Your task to perform on an android device: Open Yahoo.com Image 0: 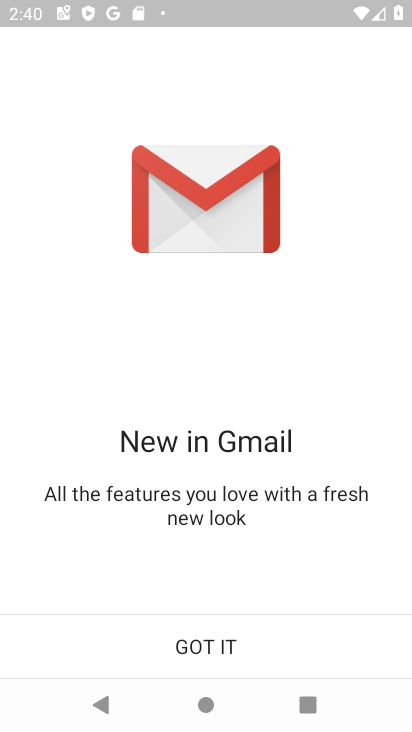
Step 0: click (199, 644)
Your task to perform on an android device: Open Yahoo.com Image 1: 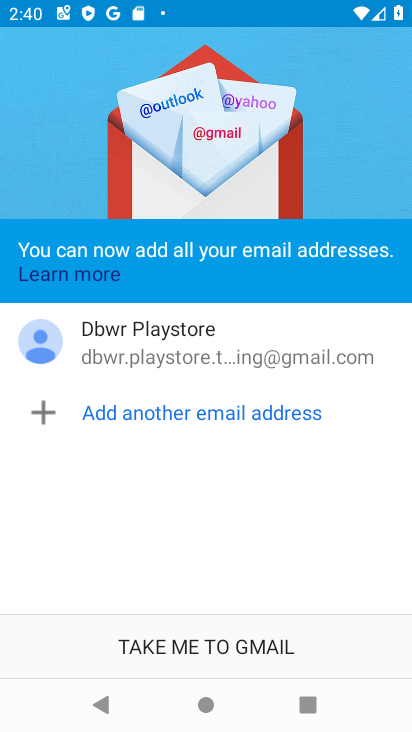
Step 1: press home button
Your task to perform on an android device: Open Yahoo.com Image 2: 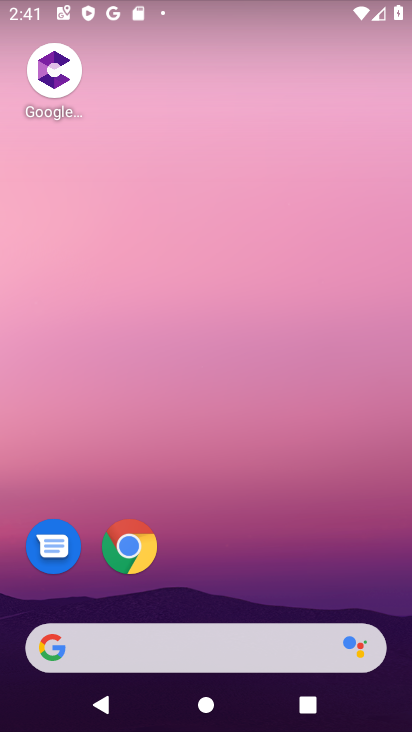
Step 2: drag from (399, 666) to (382, 392)
Your task to perform on an android device: Open Yahoo.com Image 3: 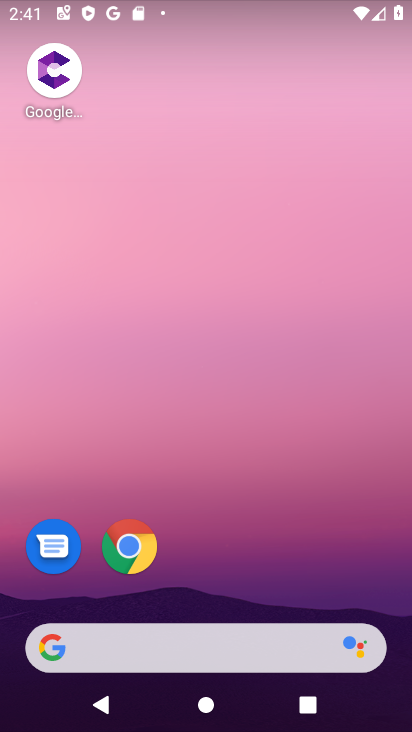
Step 3: drag from (400, 683) to (408, 424)
Your task to perform on an android device: Open Yahoo.com Image 4: 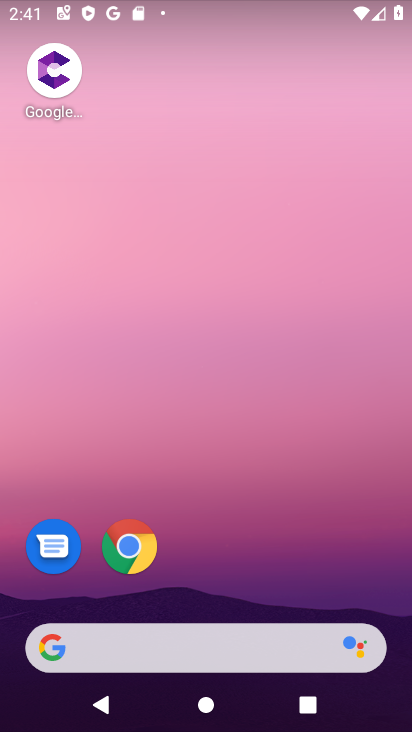
Step 4: click (124, 547)
Your task to perform on an android device: Open Yahoo.com Image 5: 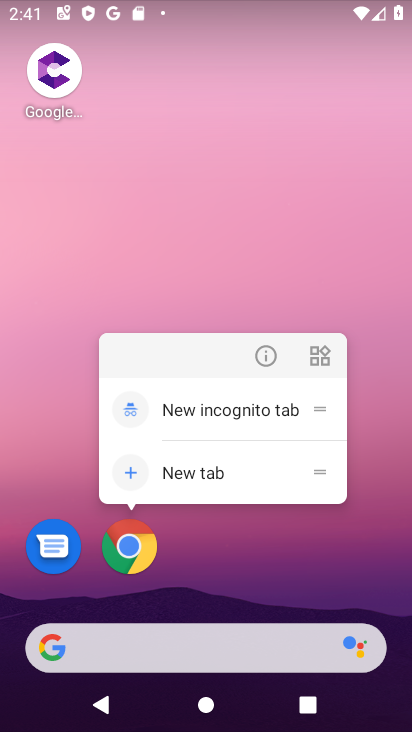
Step 5: click (124, 547)
Your task to perform on an android device: Open Yahoo.com Image 6: 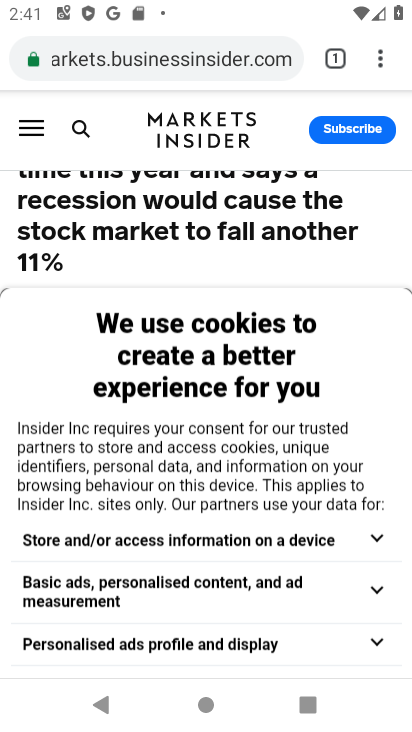
Step 6: click (295, 59)
Your task to perform on an android device: Open Yahoo.com Image 7: 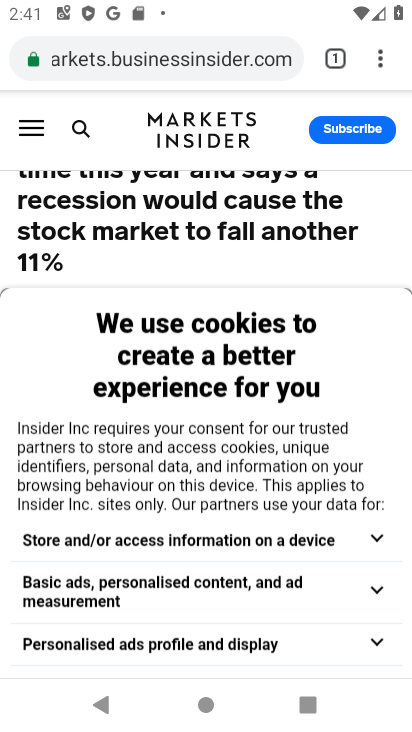
Step 7: click (289, 60)
Your task to perform on an android device: Open Yahoo.com Image 8: 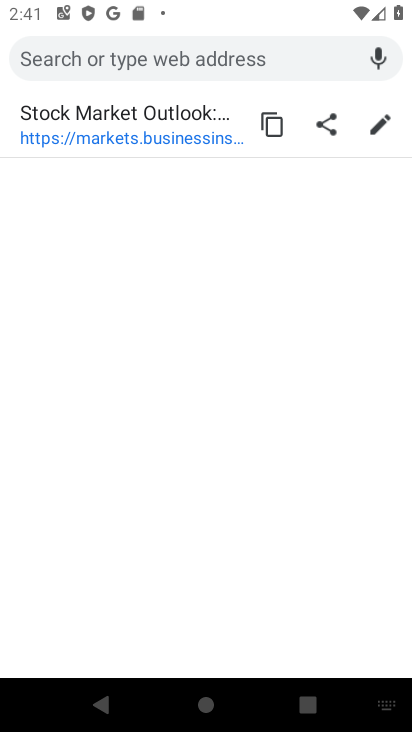
Step 8: type "Yahoo.com"
Your task to perform on an android device: Open Yahoo.com Image 9: 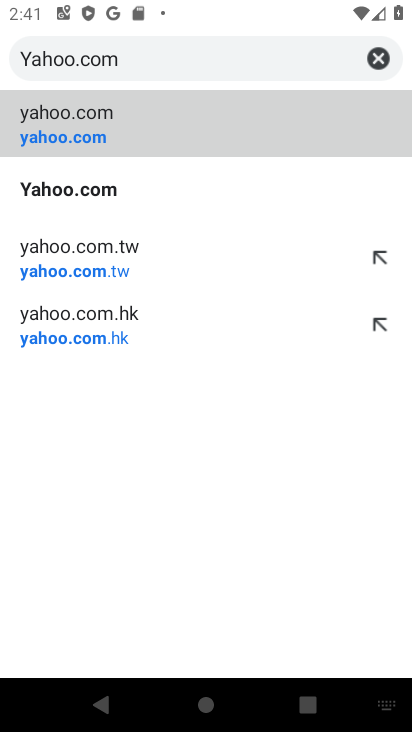
Step 9: click (72, 190)
Your task to perform on an android device: Open Yahoo.com Image 10: 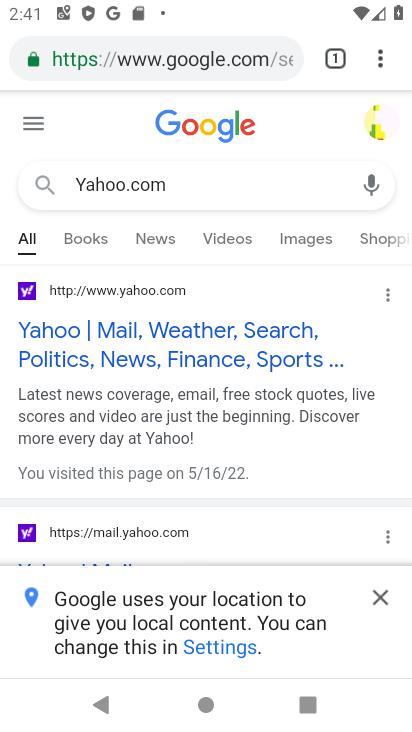
Step 10: task complete